Your task to perform on an android device: Search for macbook pro 13 inch on newegg.com, select the first entry, and add it to the cart. Image 0: 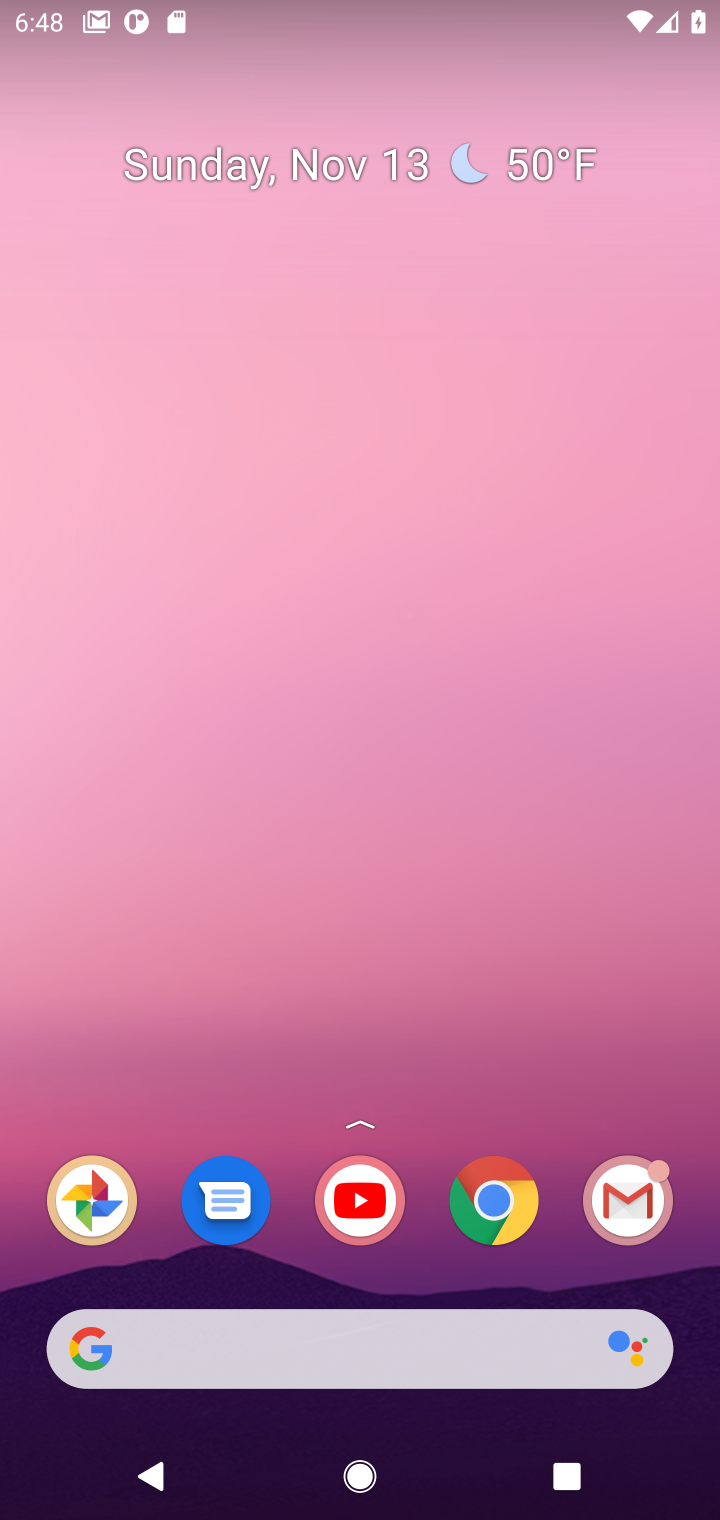
Step 0: click (474, 1188)
Your task to perform on an android device: Search for macbook pro 13 inch on newegg.com, select the first entry, and add it to the cart. Image 1: 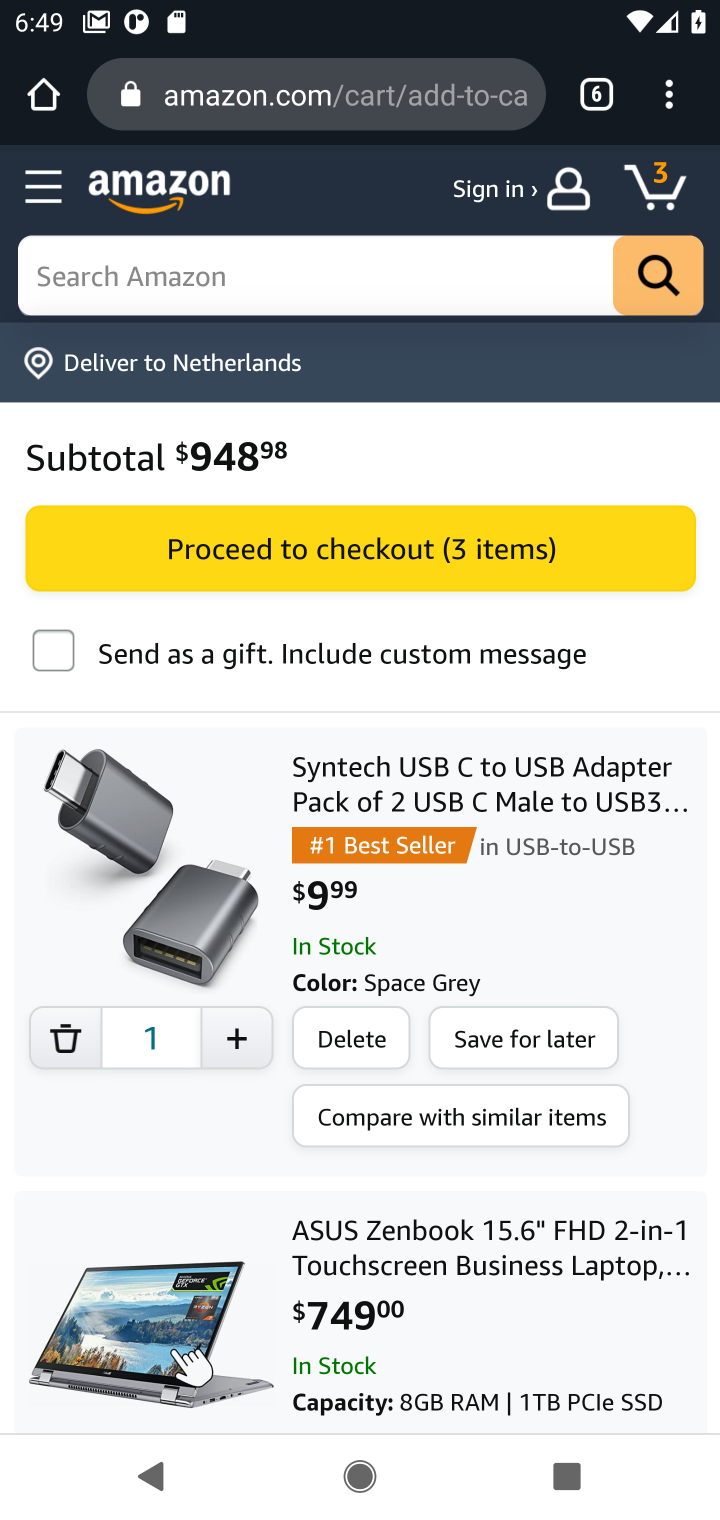
Step 1: click (594, 92)
Your task to perform on an android device: Search for macbook pro 13 inch on newegg.com, select the first entry, and add it to the cart. Image 2: 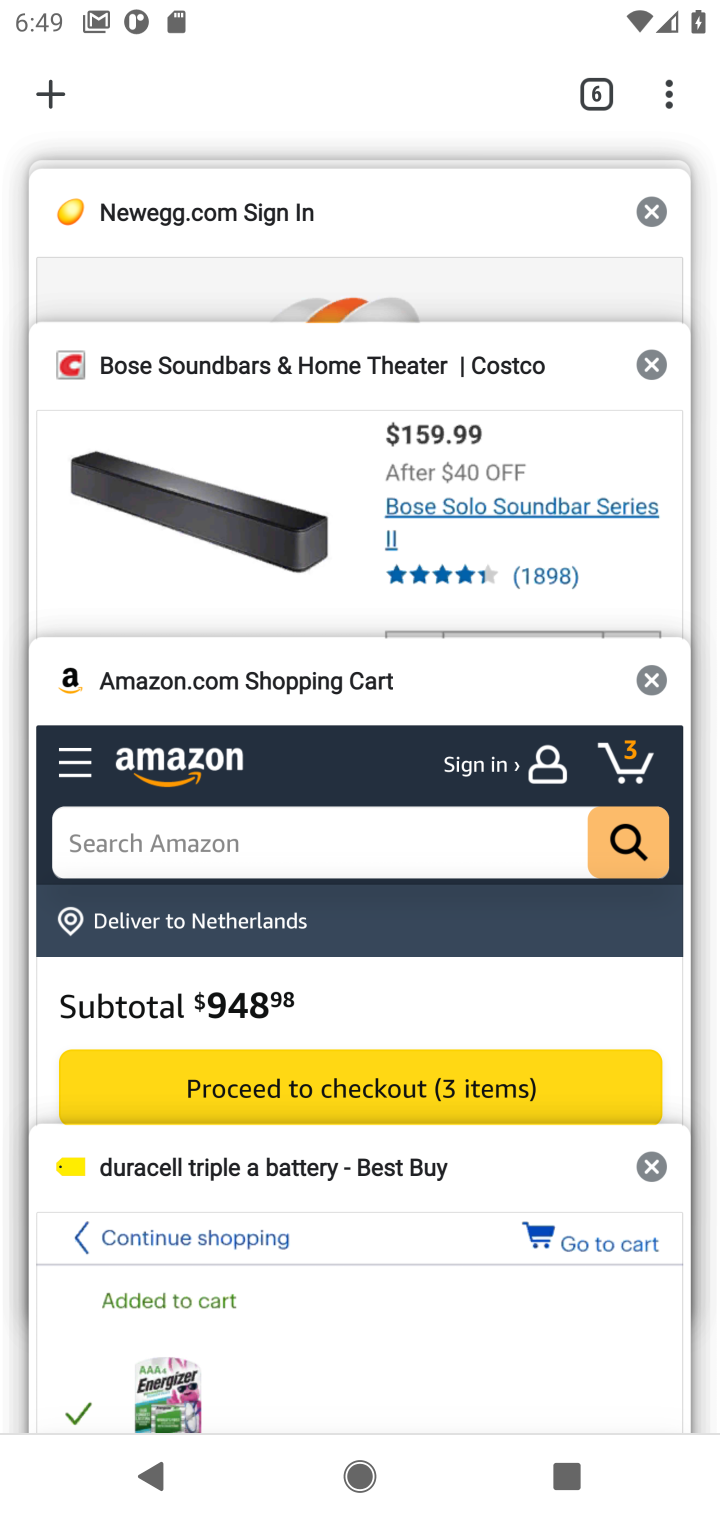
Step 2: click (388, 241)
Your task to perform on an android device: Search for macbook pro 13 inch on newegg.com, select the first entry, and add it to the cart. Image 3: 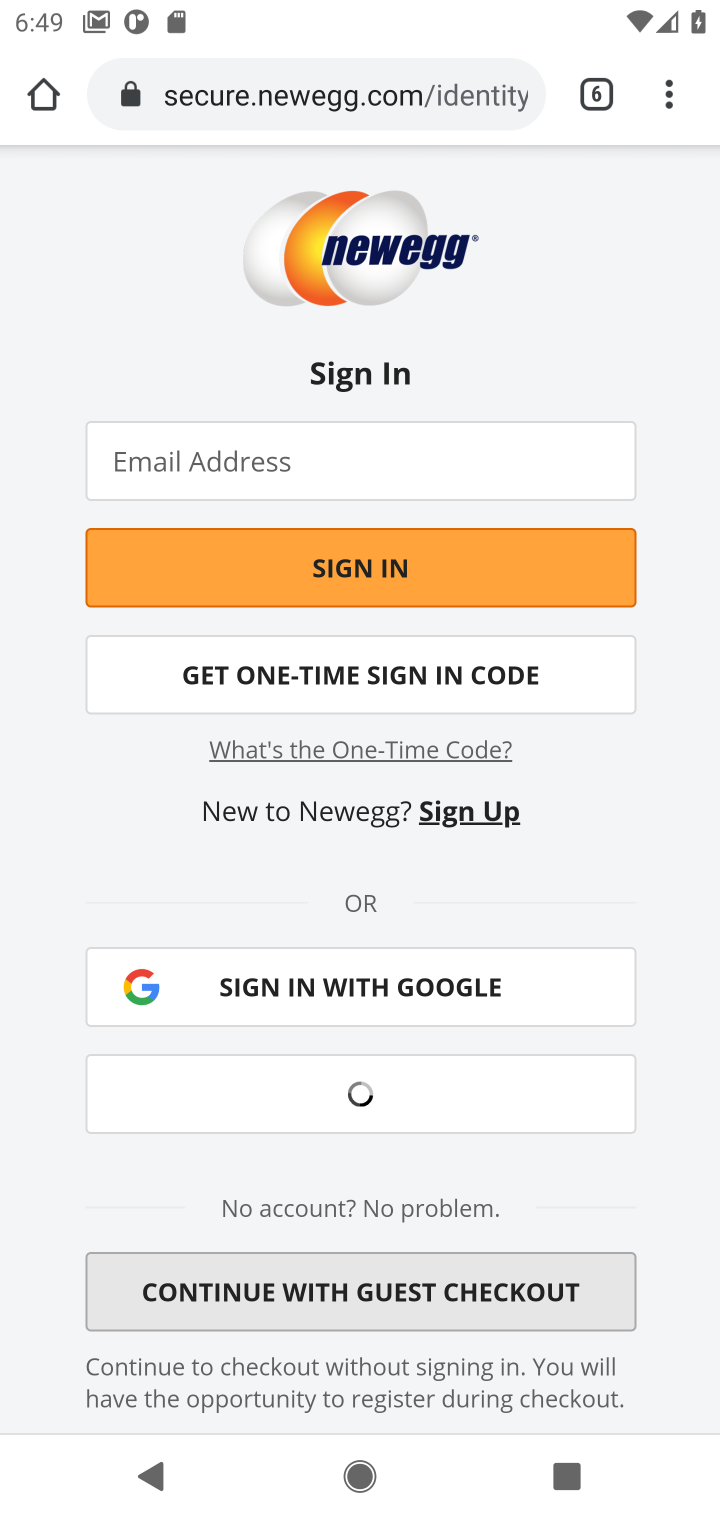
Step 3: press back button
Your task to perform on an android device: Search for macbook pro 13 inch on newegg.com, select the first entry, and add it to the cart. Image 4: 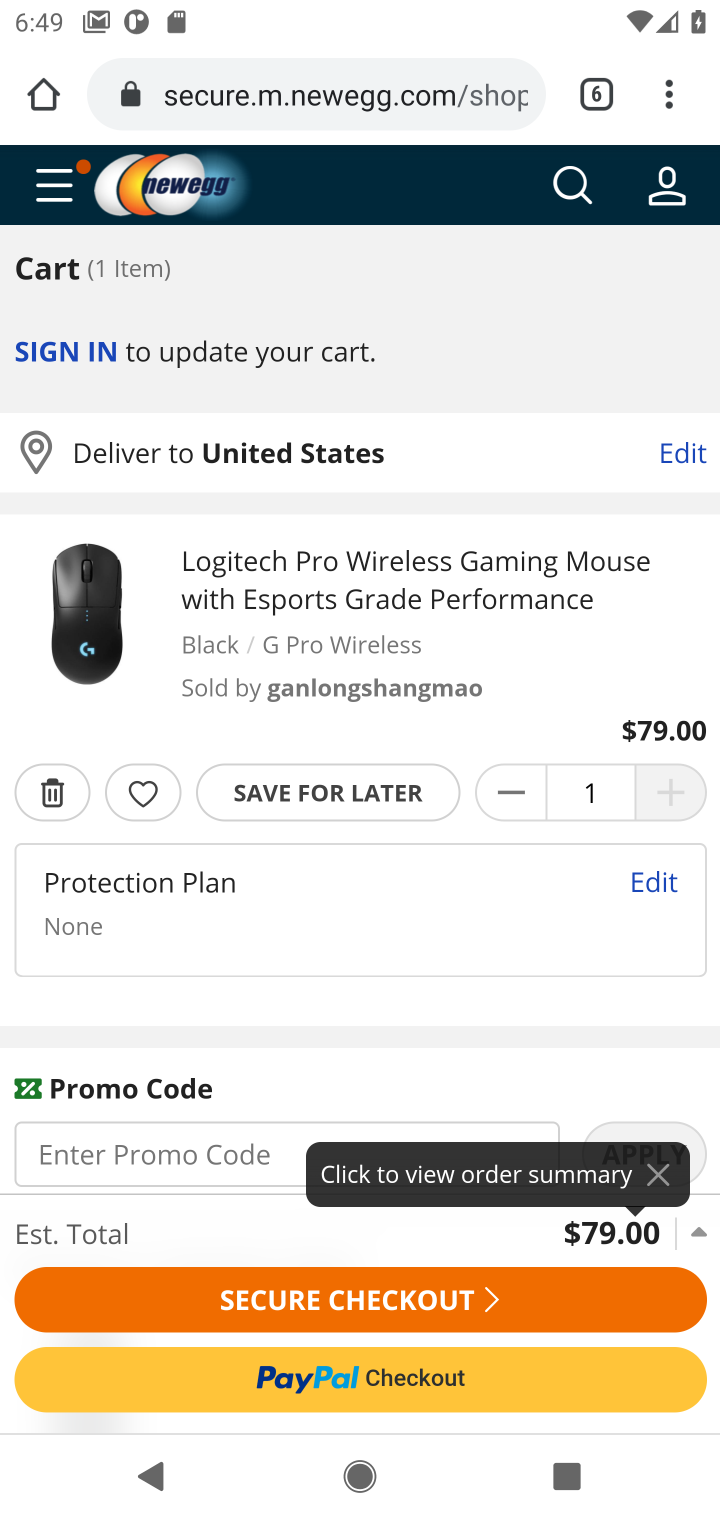
Step 4: click (577, 188)
Your task to perform on an android device: Search for macbook pro 13 inch on newegg.com, select the first entry, and add it to the cart. Image 5: 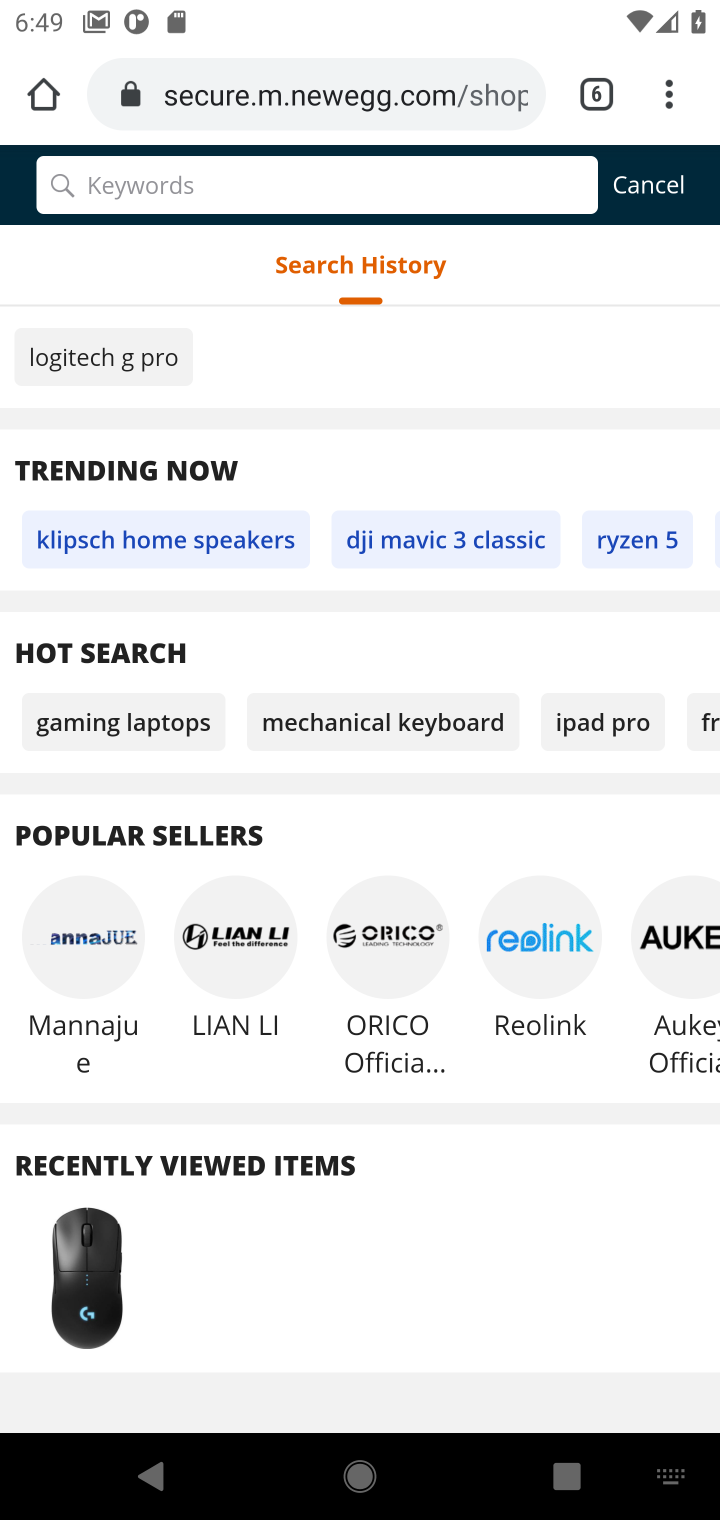
Step 5: type "macbook pro 13 inch "
Your task to perform on an android device: Search for macbook pro 13 inch on newegg.com, select the first entry, and add it to the cart. Image 6: 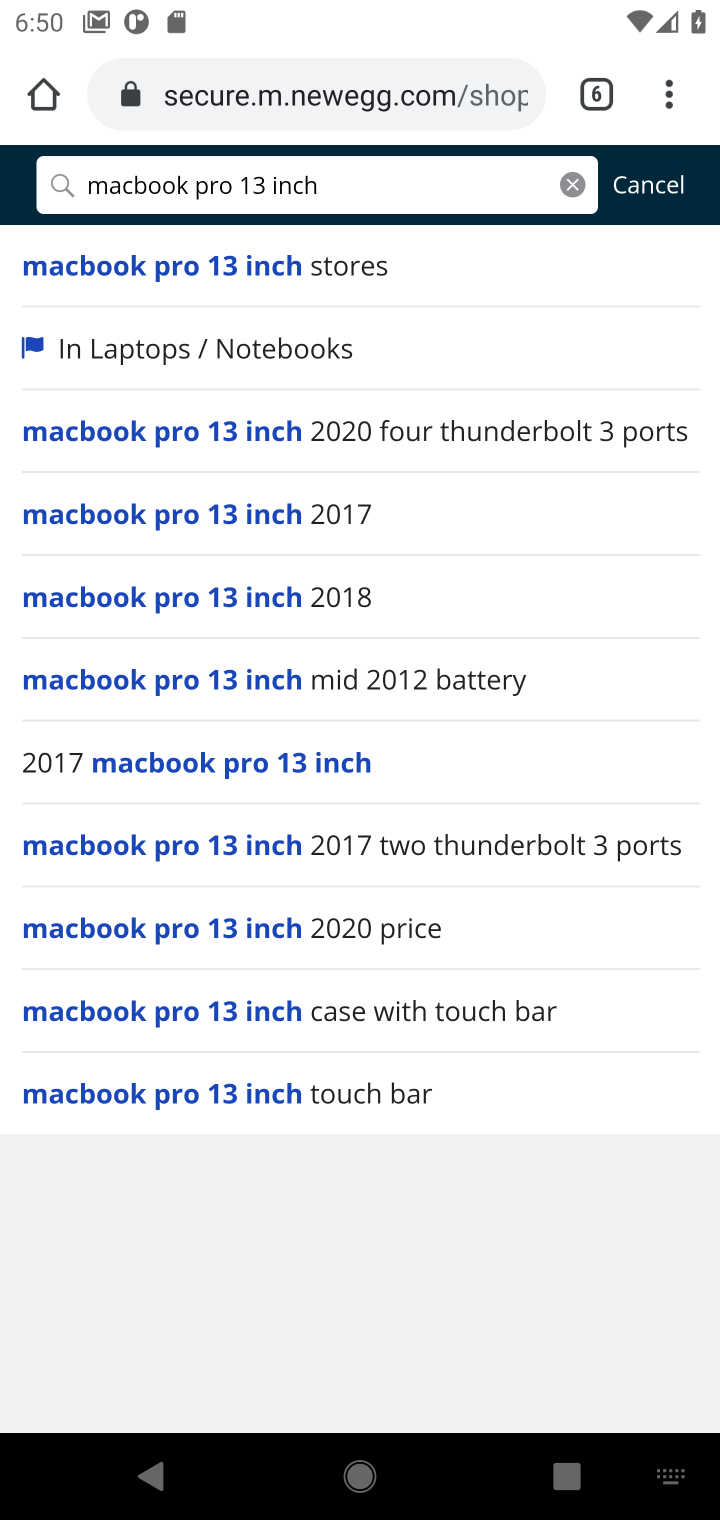
Step 6: click (197, 255)
Your task to perform on an android device: Search for macbook pro 13 inch on newegg.com, select the first entry, and add it to the cart. Image 7: 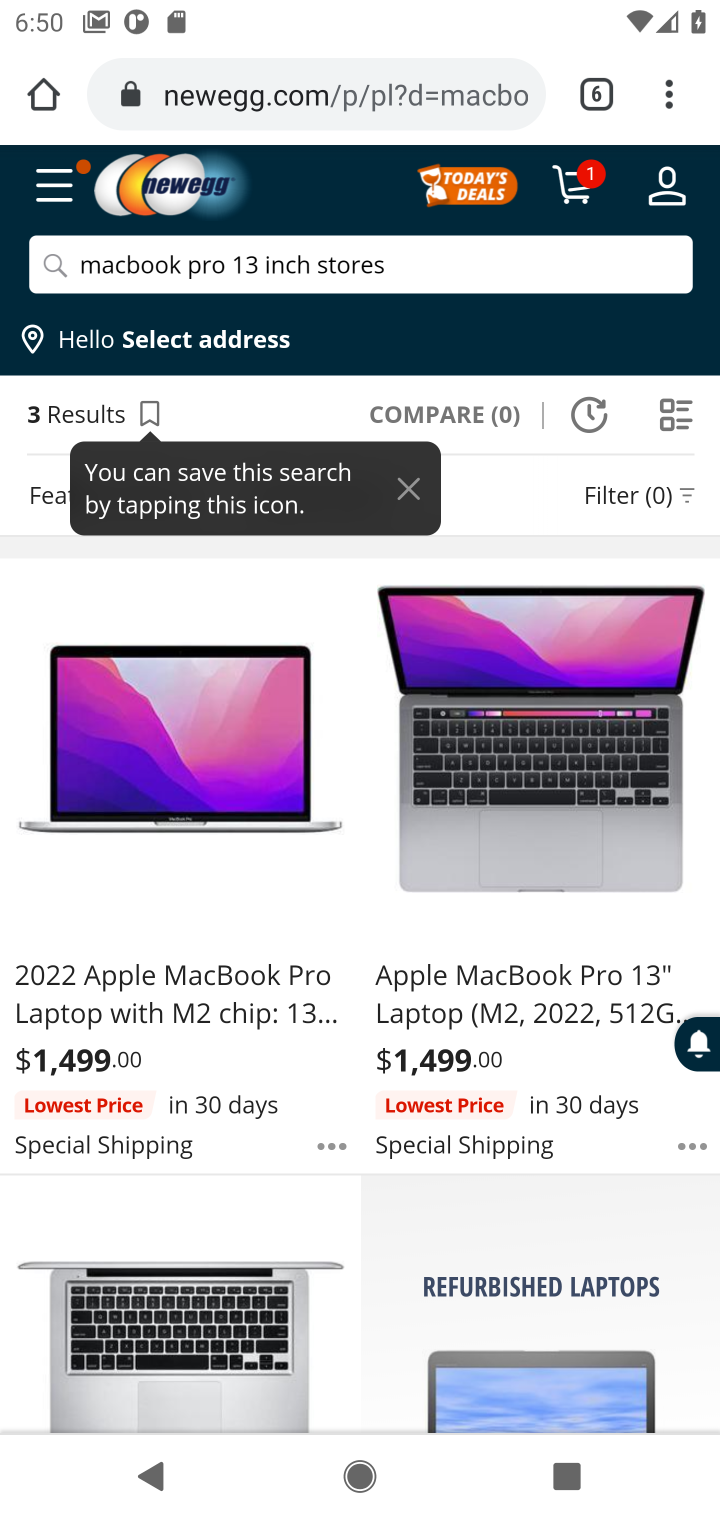
Step 7: click (550, 969)
Your task to perform on an android device: Search for macbook pro 13 inch on newegg.com, select the first entry, and add it to the cart. Image 8: 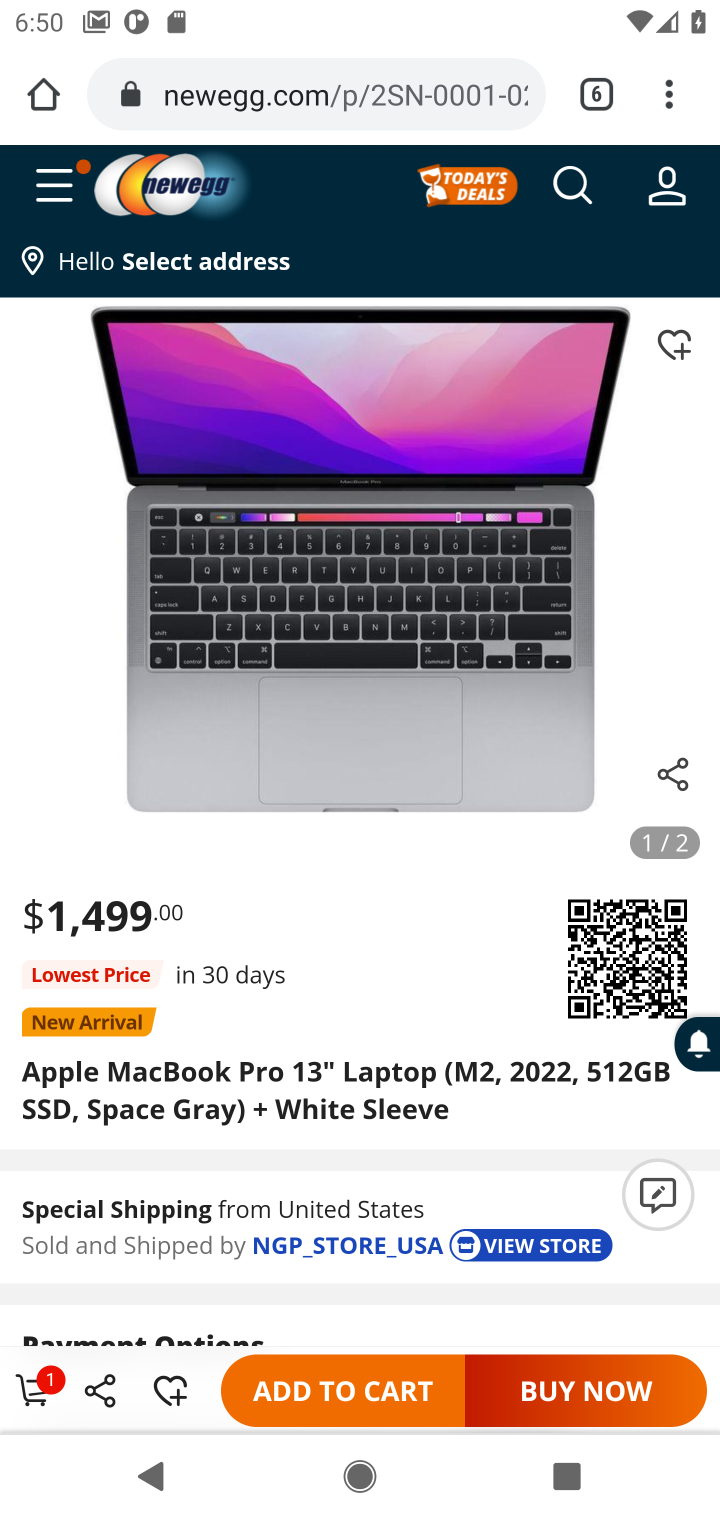
Step 8: click (351, 1390)
Your task to perform on an android device: Search for macbook pro 13 inch on newegg.com, select the first entry, and add it to the cart. Image 9: 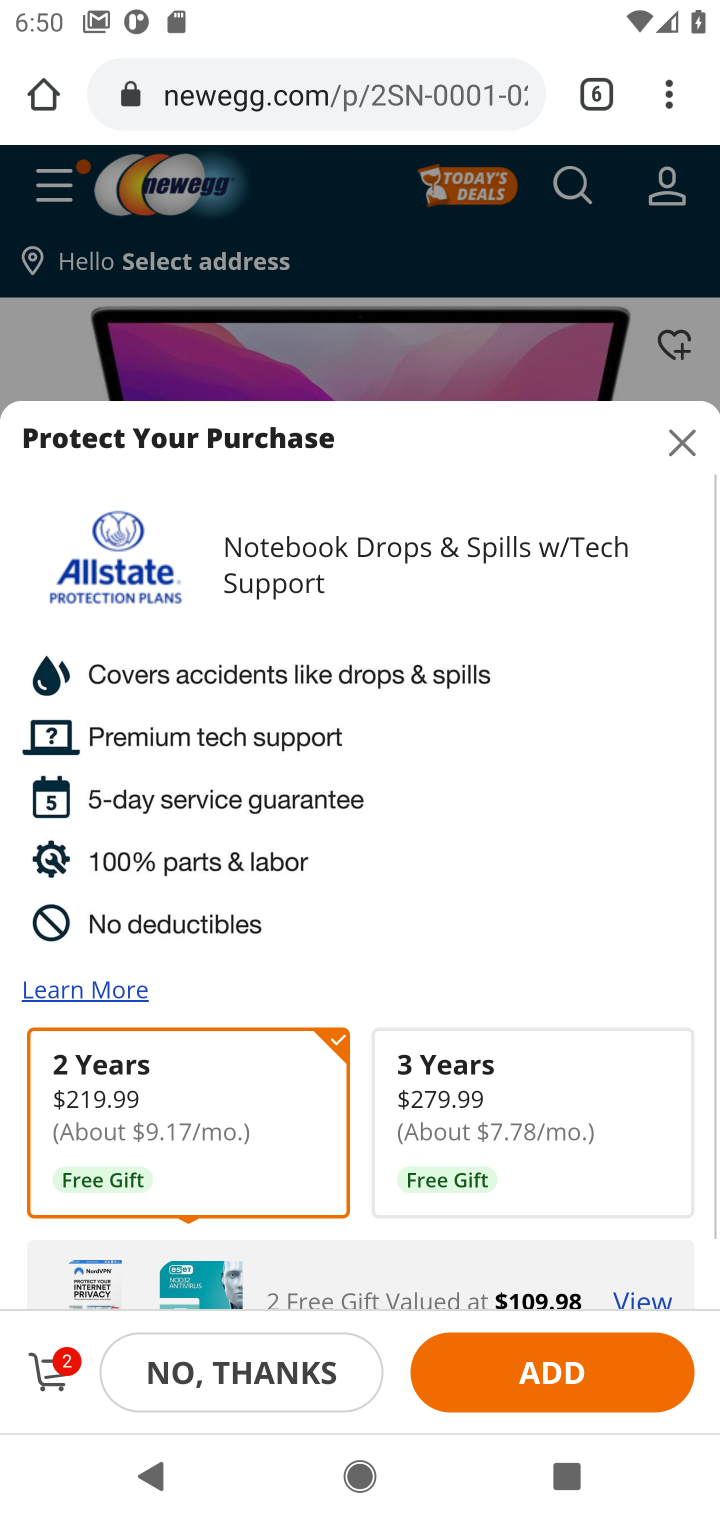
Step 9: task complete